Your task to perform on an android device: open the mobile data screen to see how much data has been used Image 0: 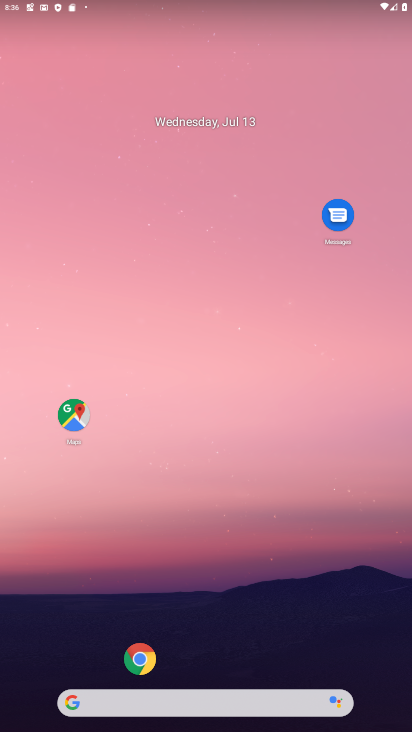
Step 0: drag from (155, 298) to (205, 134)
Your task to perform on an android device: open the mobile data screen to see how much data has been used Image 1: 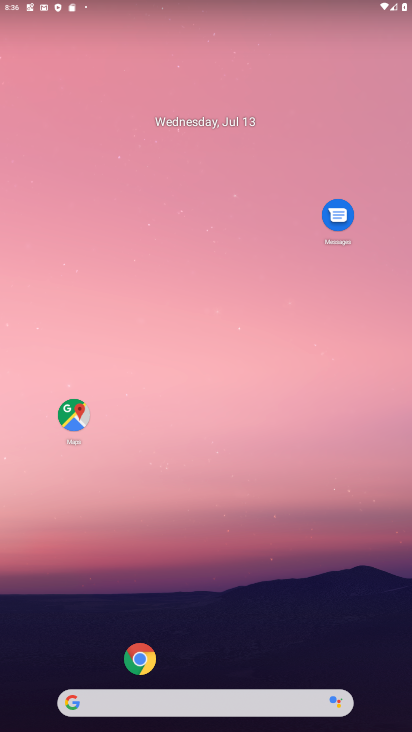
Step 1: drag from (17, 713) to (259, 37)
Your task to perform on an android device: open the mobile data screen to see how much data has been used Image 2: 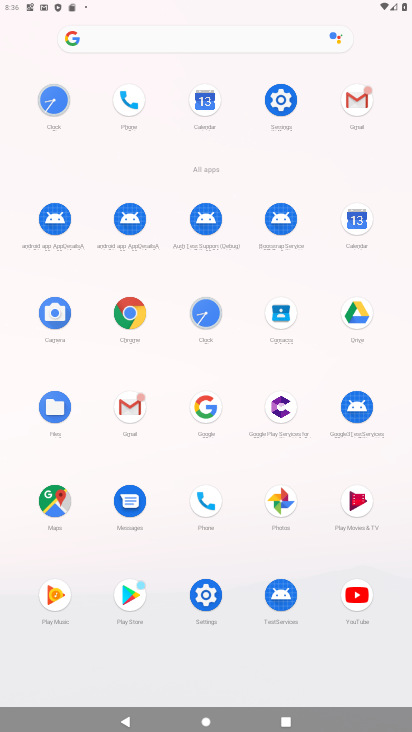
Step 2: click (192, 590)
Your task to perform on an android device: open the mobile data screen to see how much data has been used Image 3: 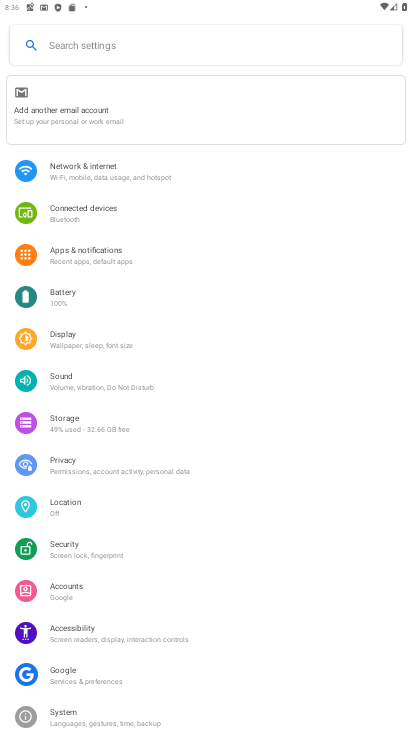
Step 3: click (45, 167)
Your task to perform on an android device: open the mobile data screen to see how much data has been used Image 4: 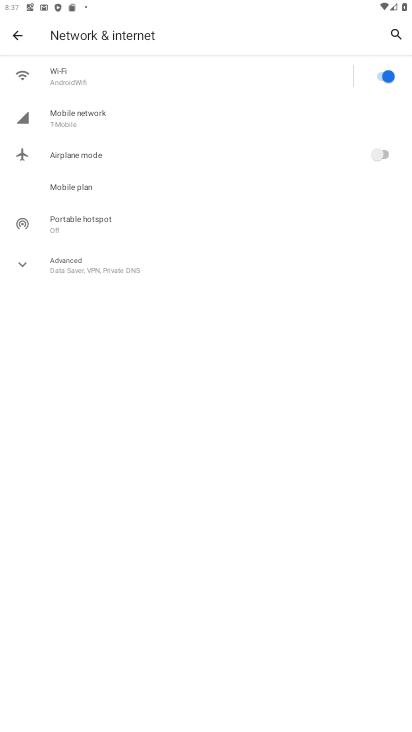
Step 4: click (57, 128)
Your task to perform on an android device: open the mobile data screen to see how much data has been used Image 5: 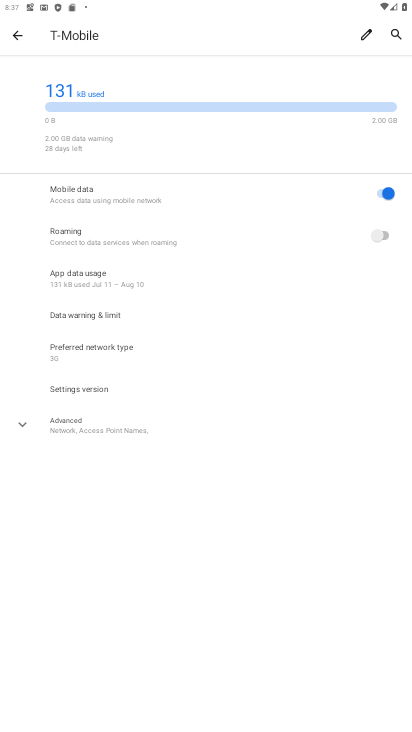
Step 5: task complete